Your task to perform on an android device: What's the weather? Image 0: 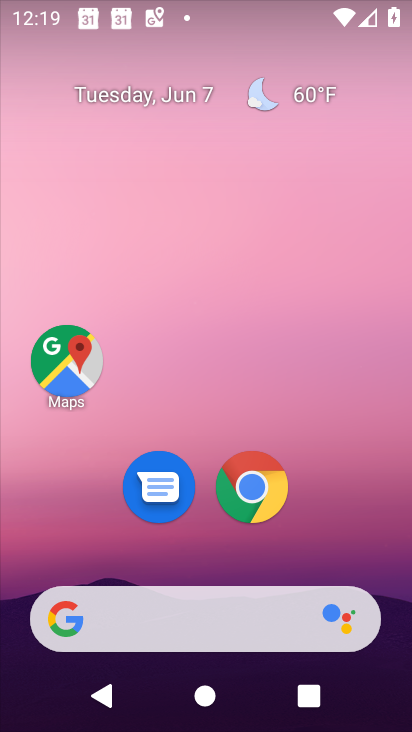
Step 0: drag from (393, 577) to (310, 192)
Your task to perform on an android device: What's the weather? Image 1: 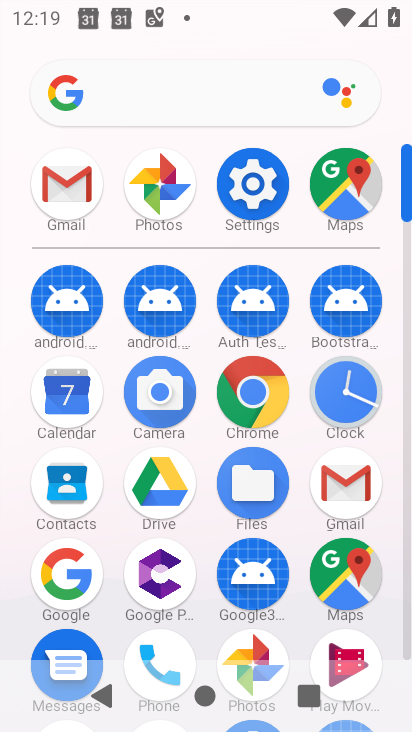
Step 1: click (180, 92)
Your task to perform on an android device: What's the weather? Image 2: 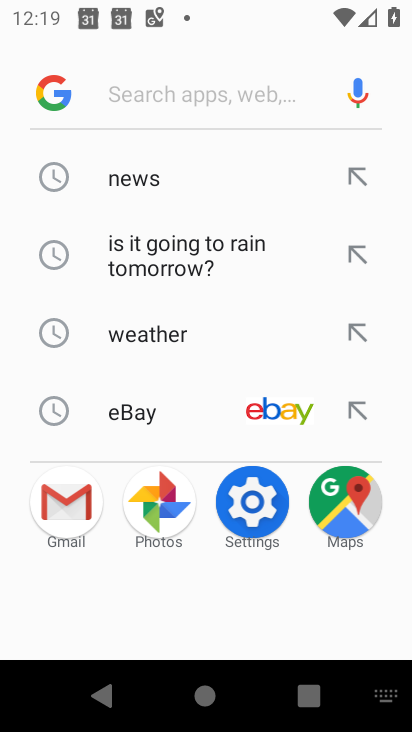
Step 2: click (180, 328)
Your task to perform on an android device: What's the weather? Image 3: 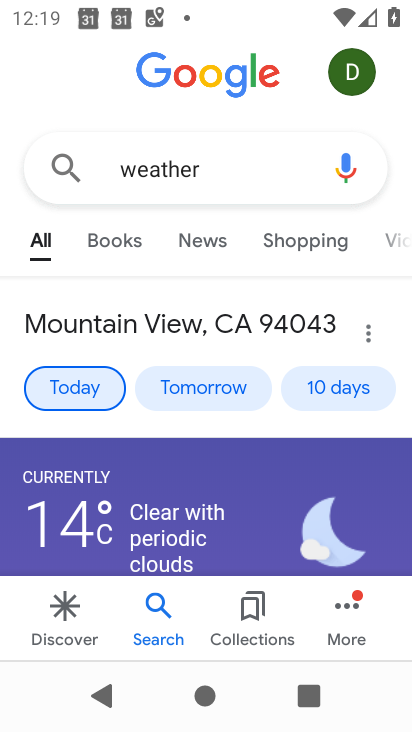
Step 3: task complete